Your task to perform on an android device: Check the weather Image 0: 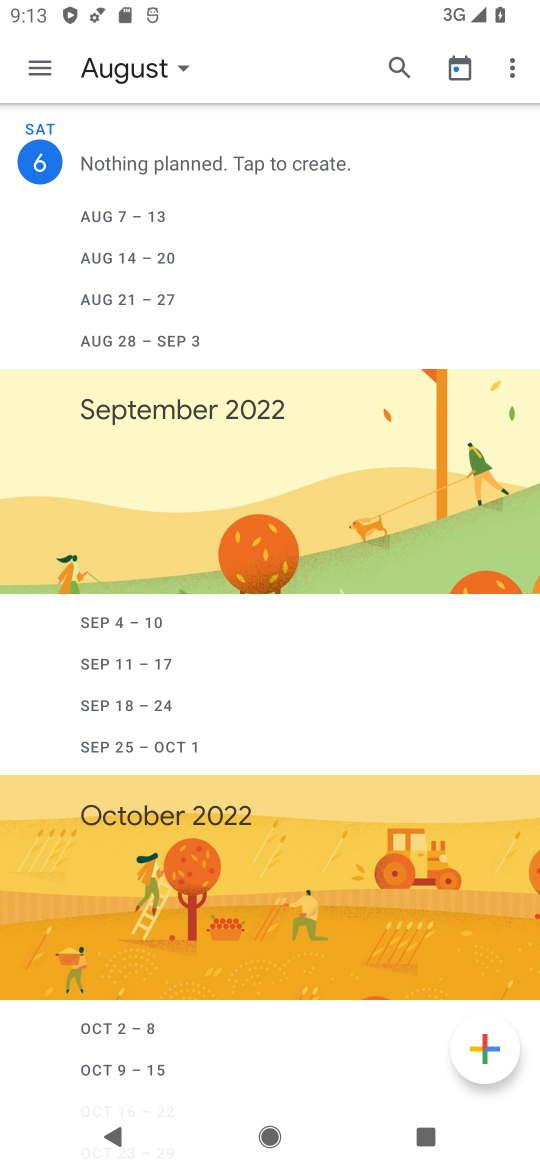
Step 0: press home button
Your task to perform on an android device: Check the weather Image 1: 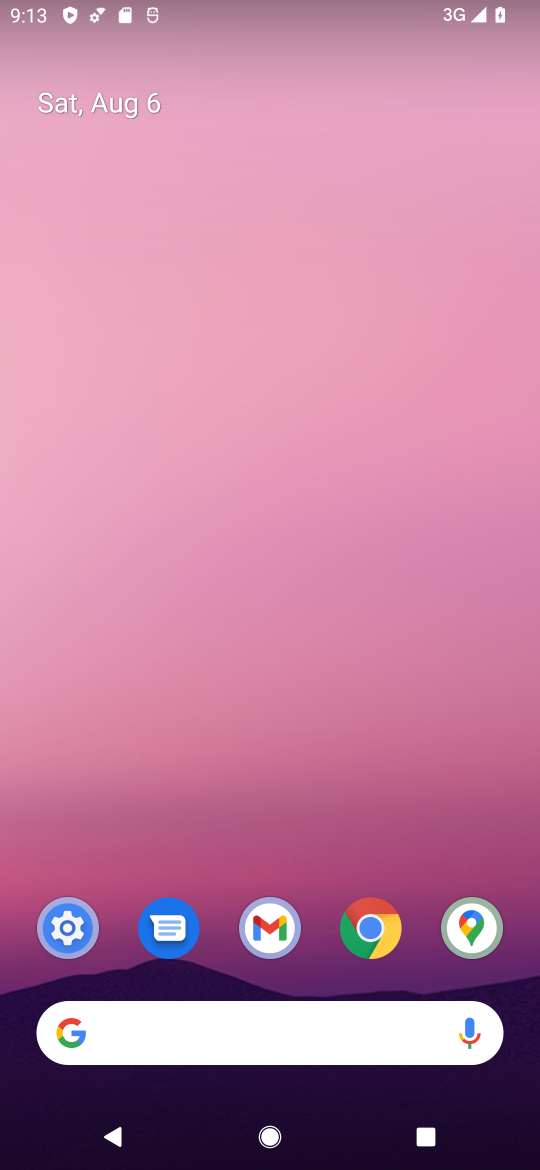
Step 1: click (208, 1019)
Your task to perform on an android device: Check the weather Image 2: 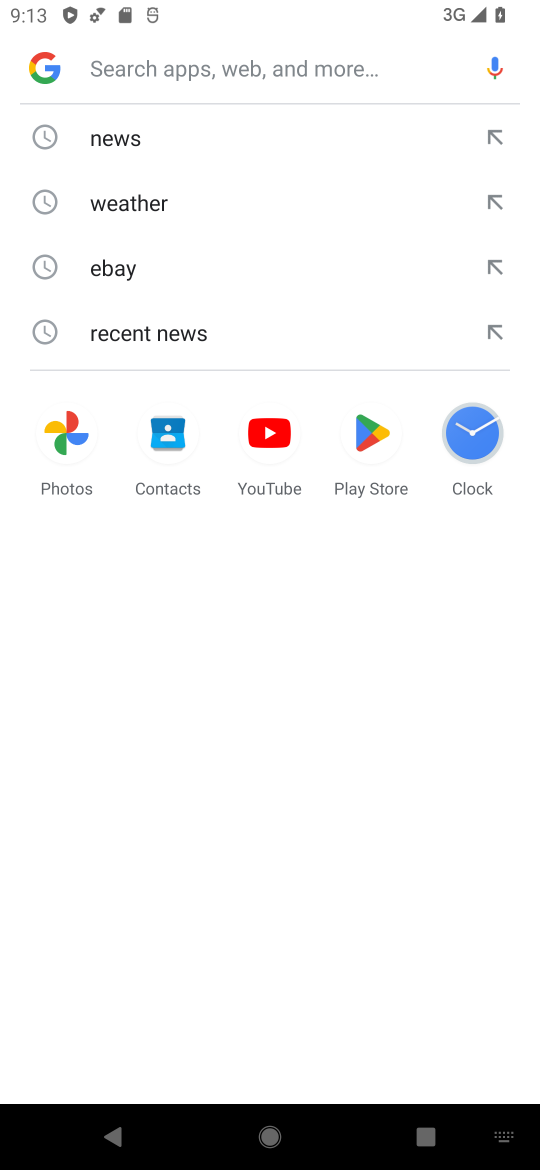
Step 2: click (123, 199)
Your task to perform on an android device: Check the weather Image 3: 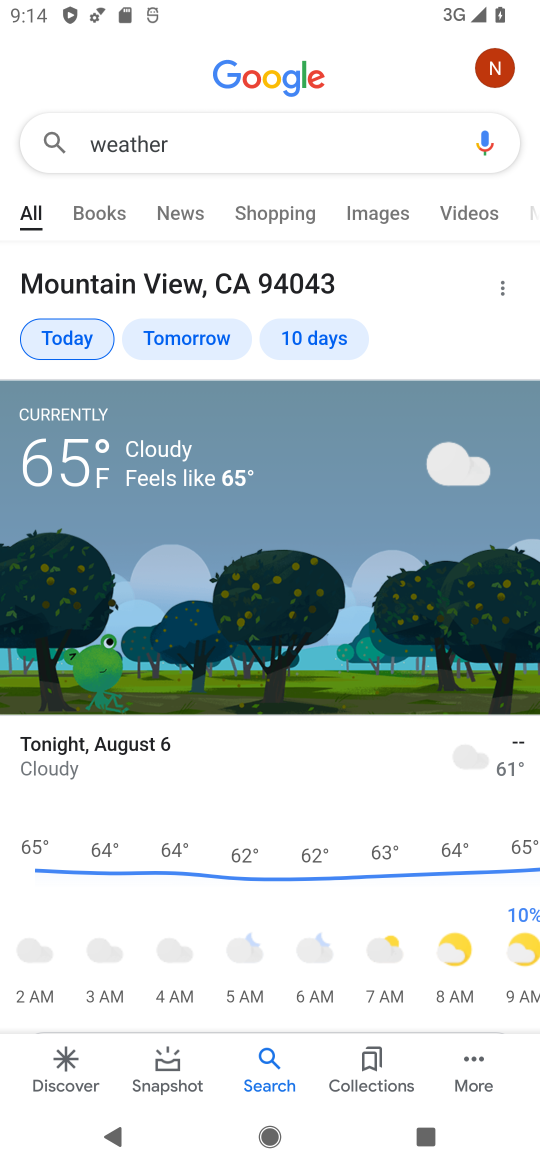
Step 3: task complete